Your task to perform on an android device: Go to Yahoo.com Image 0: 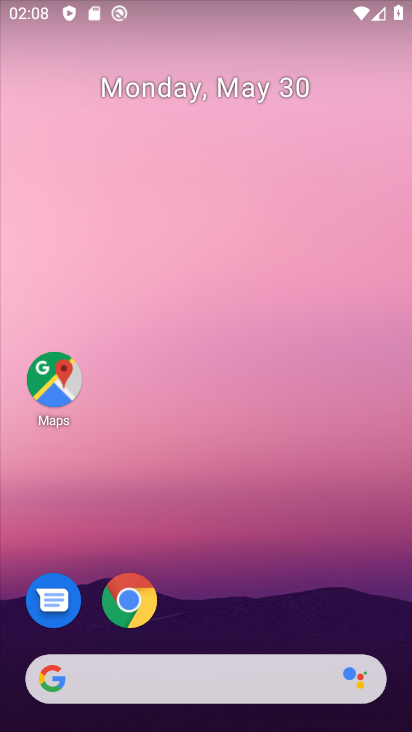
Step 0: click (137, 602)
Your task to perform on an android device: Go to Yahoo.com Image 1: 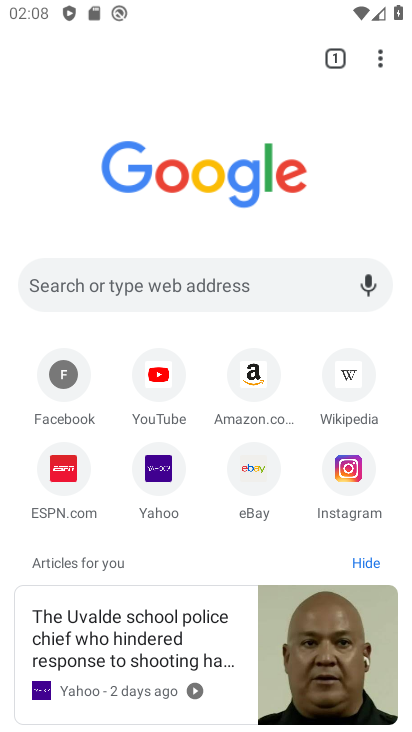
Step 1: click (167, 479)
Your task to perform on an android device: Go to Yahoo.com Image 2: 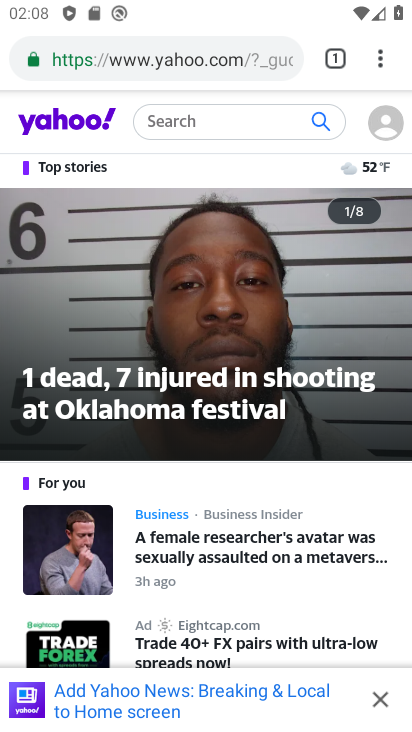
Step 2: task complete